Your task to perform on an android device: choose inbox layout in the gmail app Image 0: 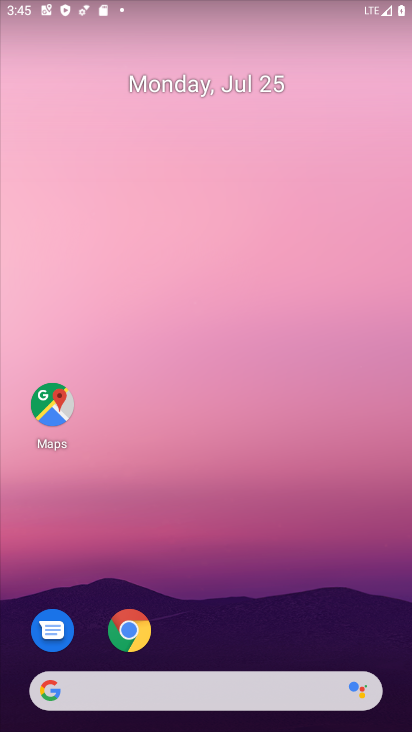
Step 0: drag from (235, 648) to (142, 21)
Your task to perform on an android device: choose inbox layout in the gmail app Image 1: 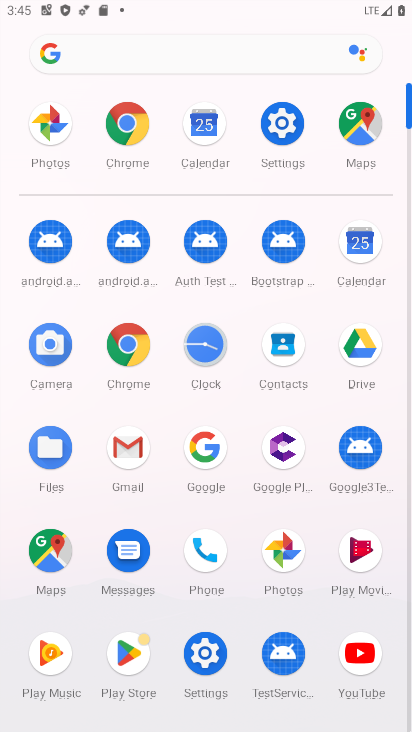
Step 1: click (132, 461)
Your task to perform on an android device: choose inbox layout in the gmail app Image 2: 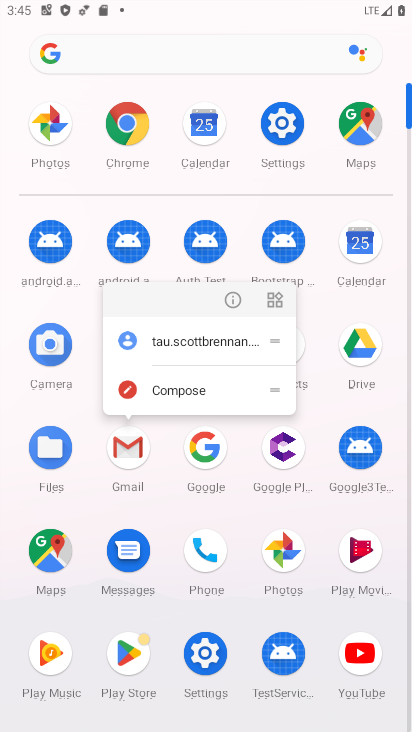
Step 2: click (142, 470)
Your task to perform on an android device: choose inbox layout in the gmail app Image 3: 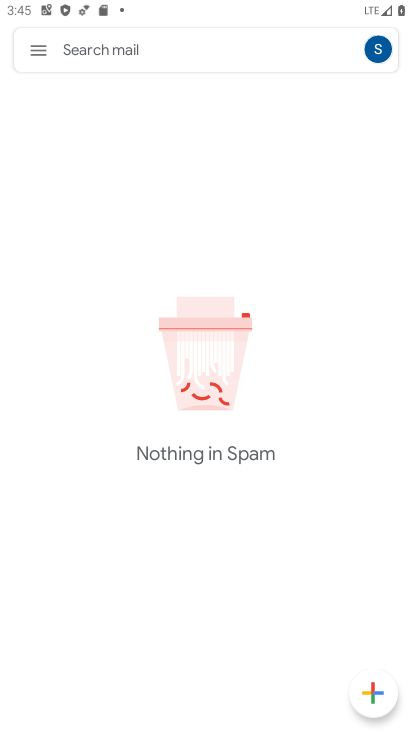
Step 3: click (36, 45)
Your task to perform on an android device: choose inbox layout in the gmail app Image 4: 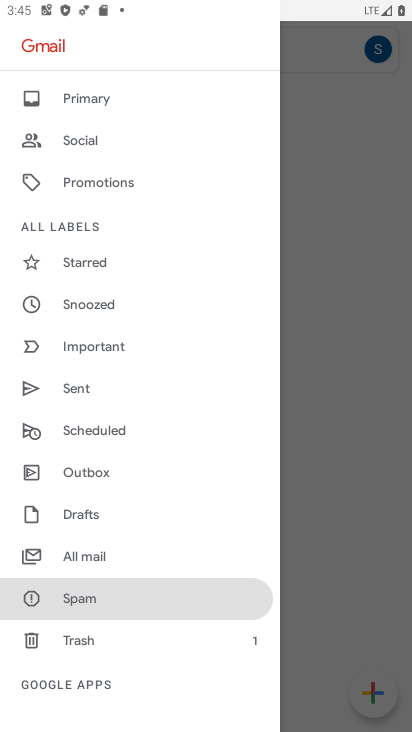
Step 4: drag from (140, 599) to (152, 24)
Your task to perform on an android device: choose inbox layout in the gmail app Image 5: 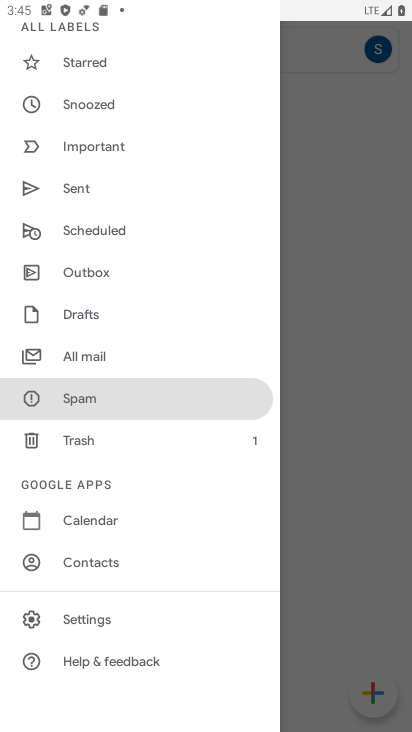
Step 5: click (97, 624)
Your task to perform on an android device: choose inbox layout in the gmail app Image 6: 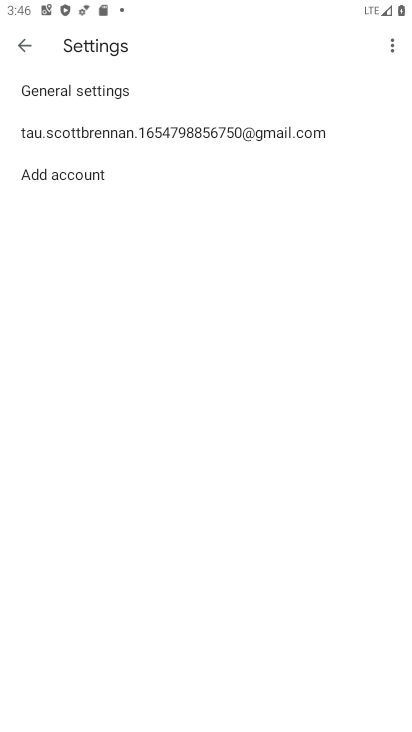
Step 6: click (117, 129)
Your task to perform on an android device: choose inbox layout in the gmail app Image 7: 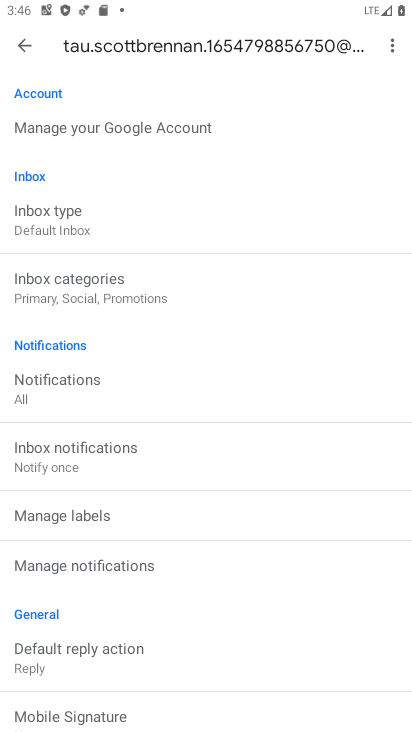
Step 7: task complete